Your task to perform on an android device: turn on location history Image 0: 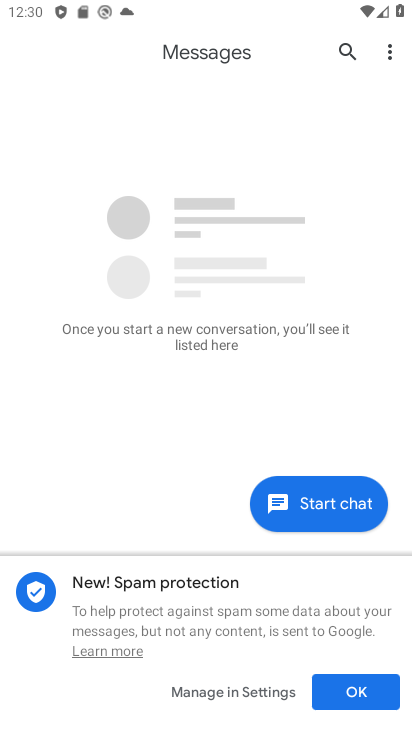
Step 0: press home button
Your task to perform on an android device: turn on location history Image 1: 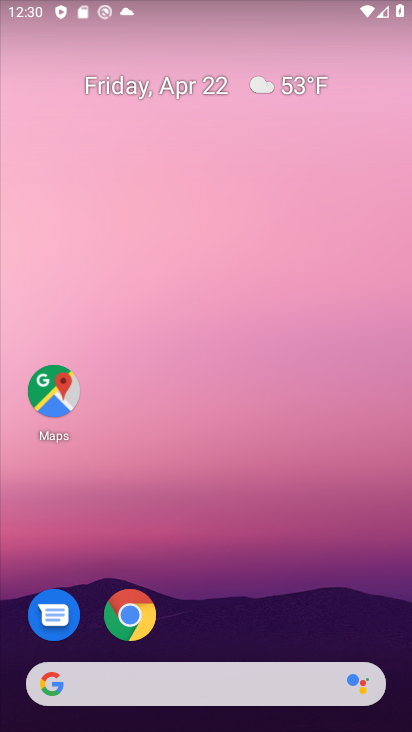
Step 1: click (56, 395)
Your task to perform on an android device: turn on location history Image 2: 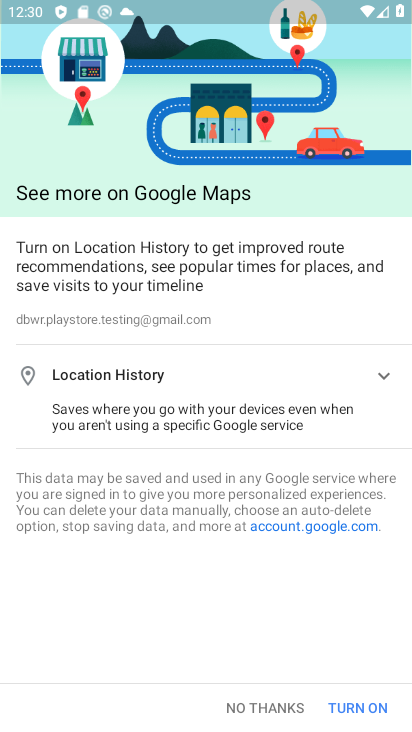
Step 2: click (274, 702)
Your task to perform on an android device: turn on location history Image 3: 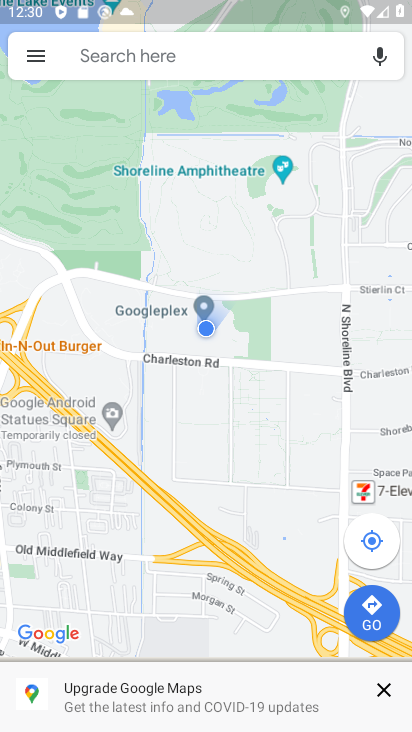
Step 3: click (42, 55)
Your task to perform on an android device: turn on location history Image 4: 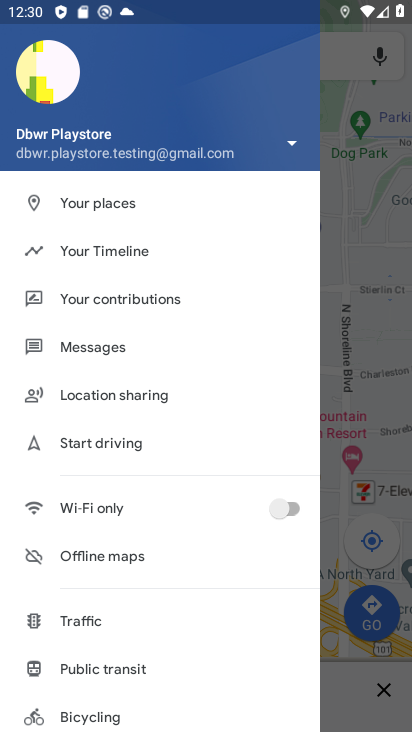
Step 4: click (100, 256)
Your task to perform on an android device: turn on location history Image 5: 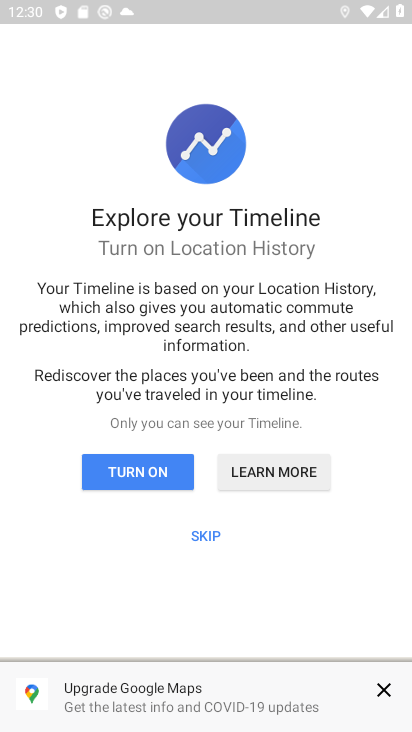
Step 5: click (200, 541)
Your task to perform on an android device: turn on location history Image 6: 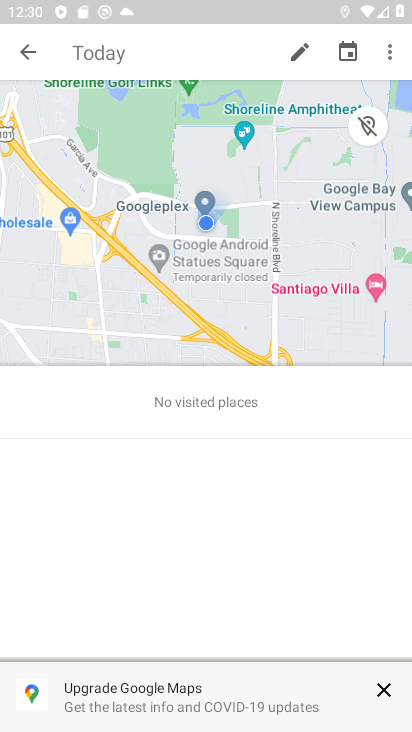
Step 6: click (390, 59)
Your task to perform on an android device: turn on location history Image 7: 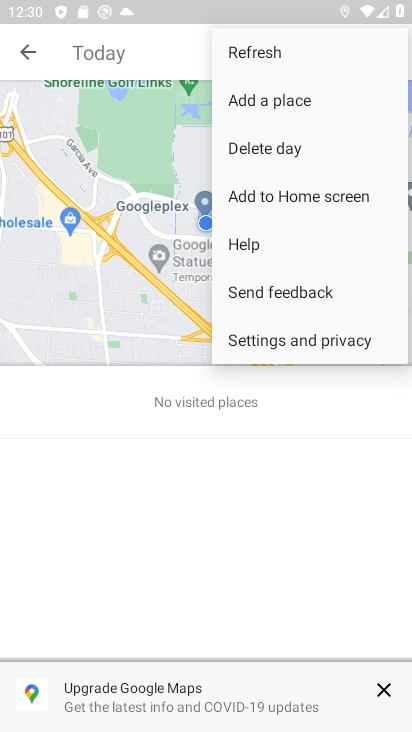
Step 7: click (276, 347)
Your task to perform on an android device: turn on location history Image 8: 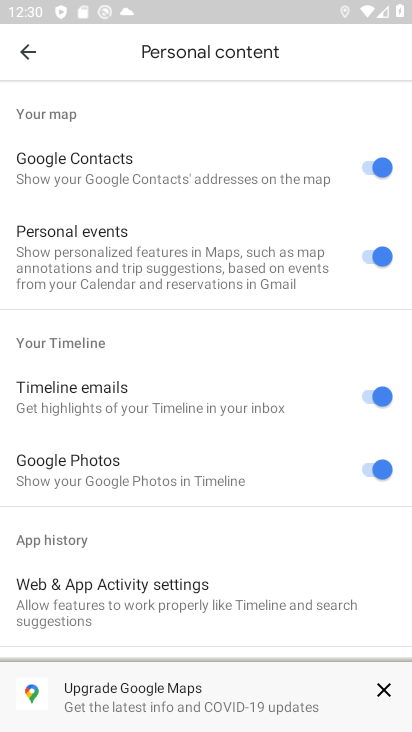
Step 8: drag from (115, 520) to (114, 168)
Your task to perform on an android device: turn on location history Image 9: 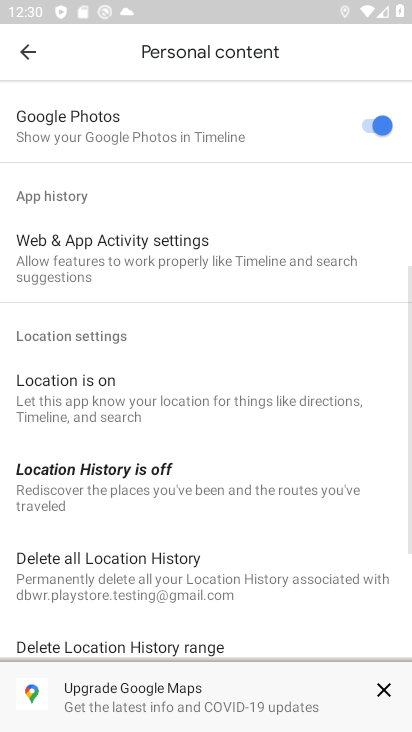
Step 9: drag from (84, 476) to (103, 246)
Your task to perform on an android device: turn on location history Image 10: 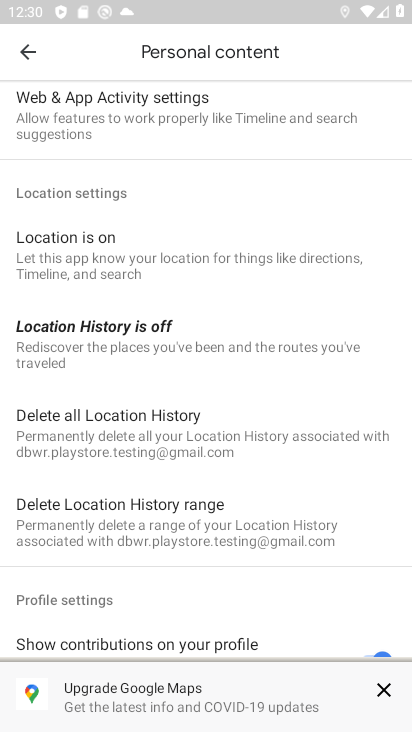
Step 10: click (82, 343)
Your task to perform on an android device: turn on location history Image 11: 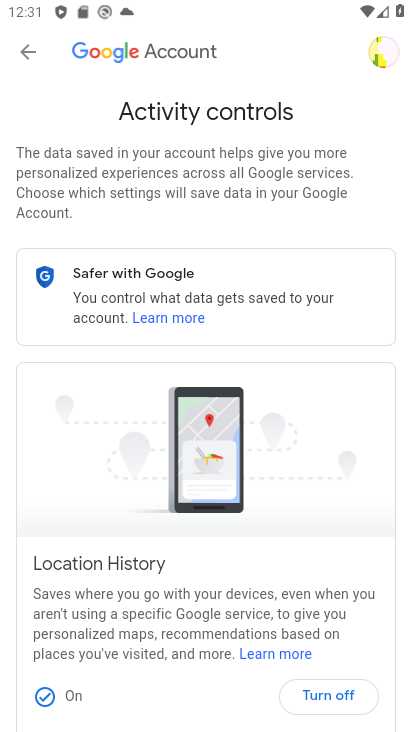
Step 11: task complete